Your task to perform on an android device: Open Chrome and go to the settings page Image 0: 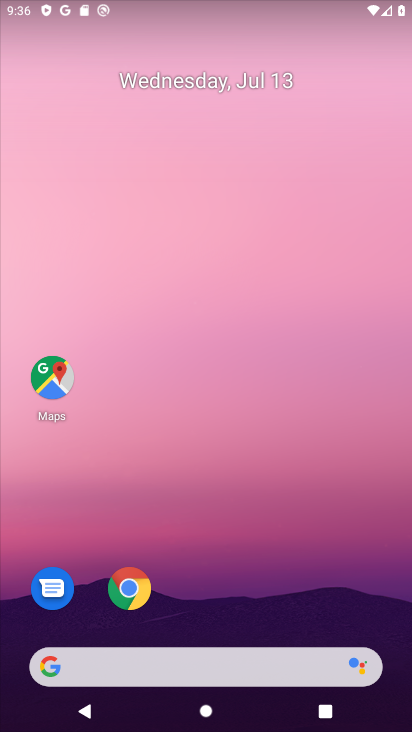
Step 0: click (129, 585)
Your task to perform on an android device: Open Chrome and go to the settings page Image 1: 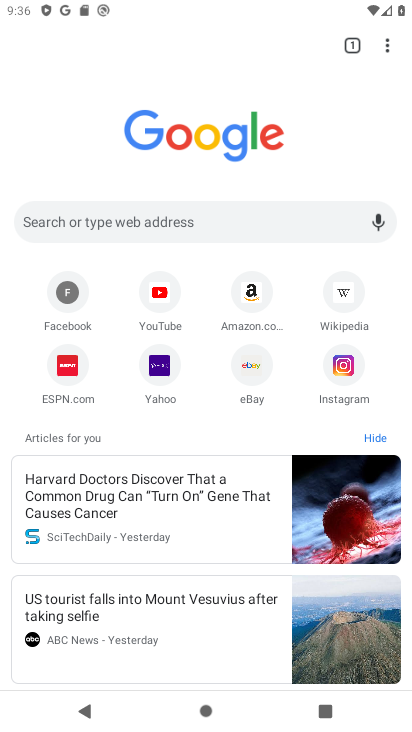
Step 1: click (385, 49)
Your task to perform on an android device: Open Chrome and go to the settings page Image 2: 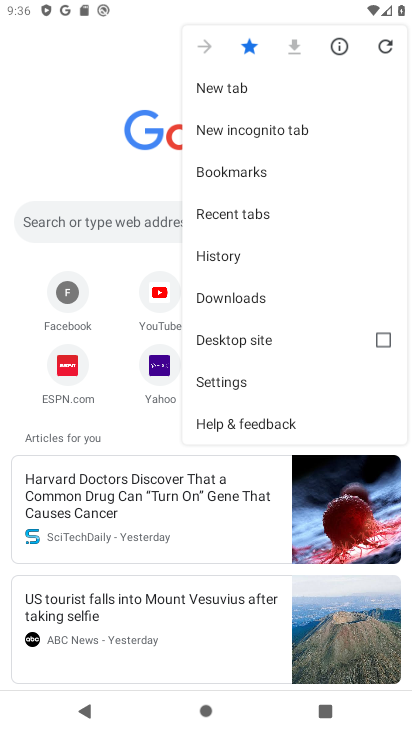
Step 2: click (256, 382)
Your task to perform on an android device: Open Chrome and go to the settings page Image 3: 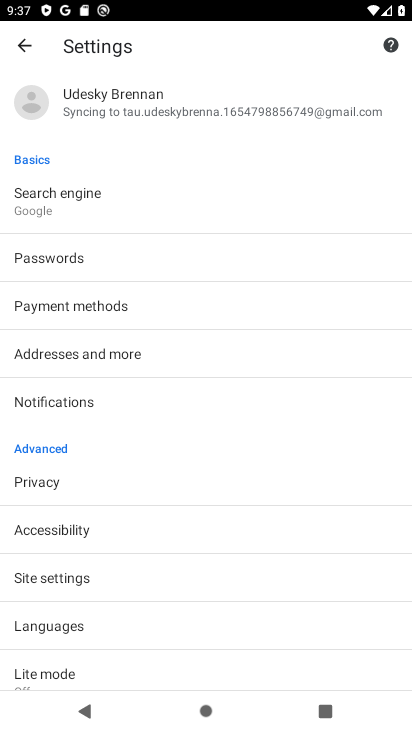
Step 3: task complete